Your task to perform on an android device: Open eBay Image 0: 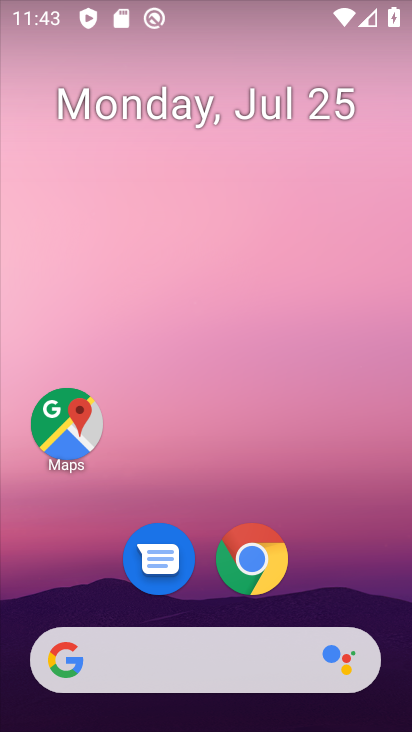
Step 0: click (272, 570)
Your task to perform on an android device: Open eBay Image 1: 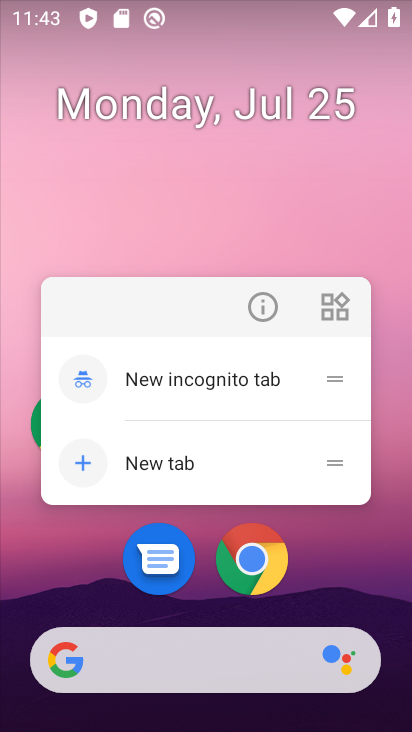
Step 1: click (266, 561)
Your task to perform on an android device: Open eBay Image 2: 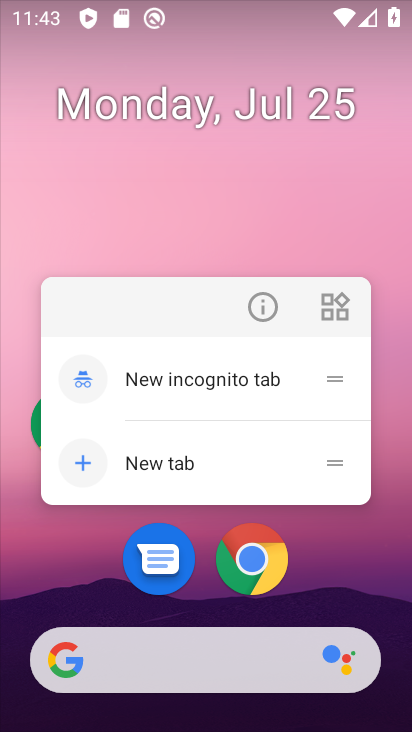
Step 2: click (266, 561)
Your task to perform on an android device: Open eBay Image 3: 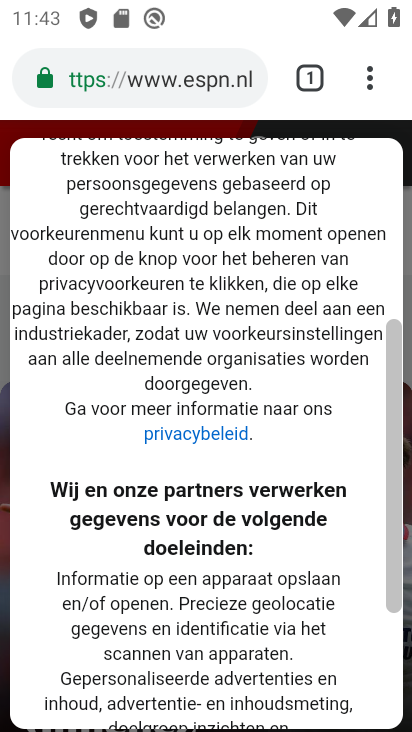
Step 3: click (303, 77)
Your task to perform on an android device: Open eBay Image 4: 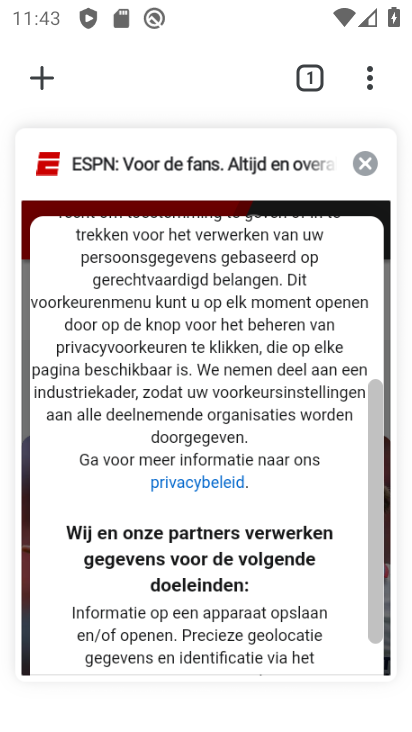
Step 4: click (40, 80)
Your task to perform on an android device: Open eBay Image 5: 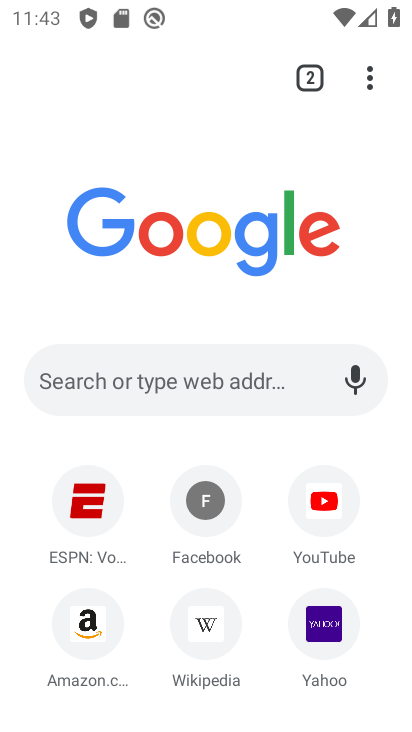
Step 5: click (151, 375)
Your task to perform on an android device: Open eBay Image 6: 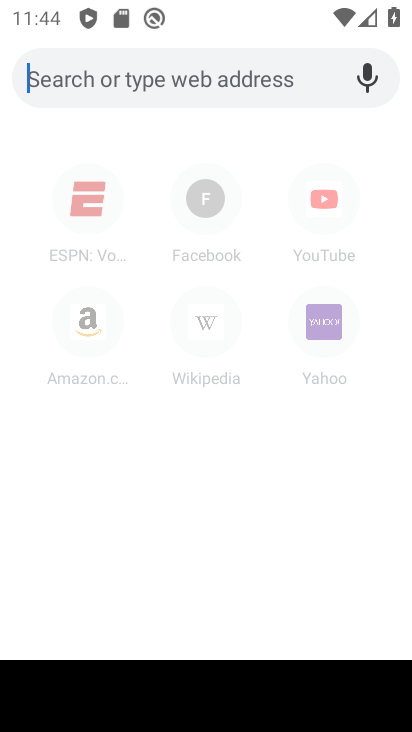
Step 6: type "ebay"
Your task to perform on an android device: Open eBay Image 7: 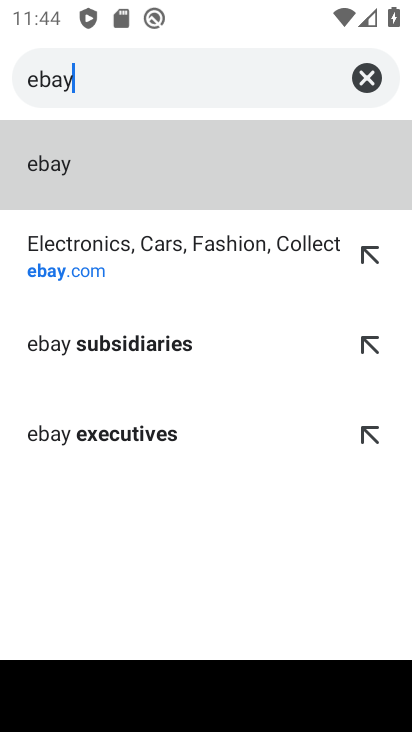
Step 7: click (90, 262)
Your task to perform on an android device: Open eBay Image 8: 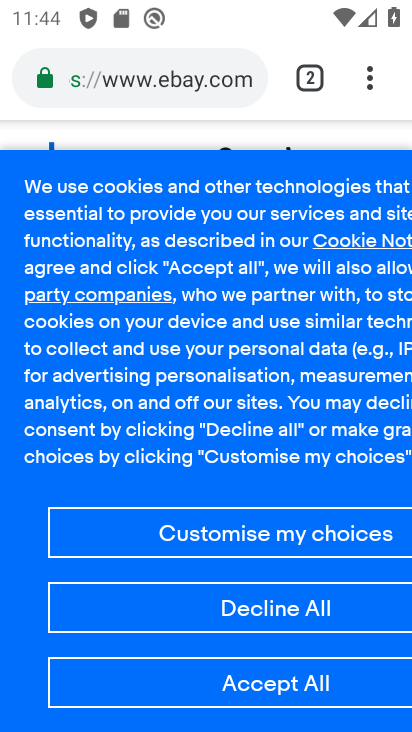
Step 8: task complete